Your task to perform on an android device: turn on improve location accuracy Image 0: 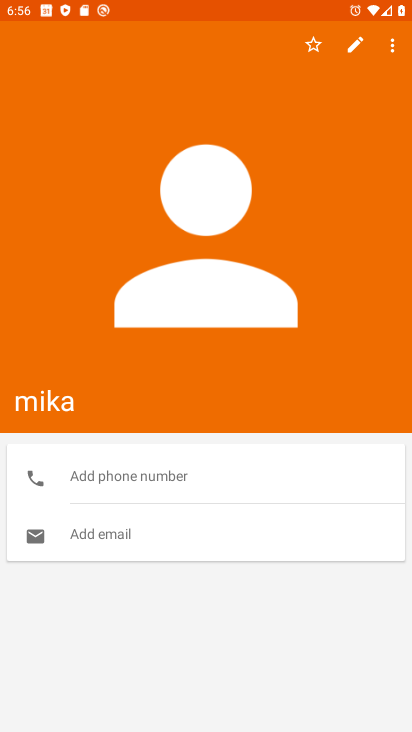
Step 0: press home button
Your task to perform on an android device: turn on improve location accuracy Image 1: 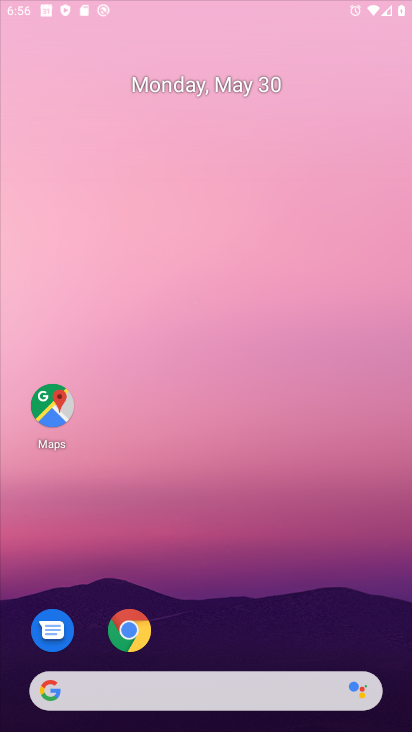
Step 1: drag from (319, 632) to (218, 8)
Your task to perform on an android device: turn on improve location accuracy Image 2: 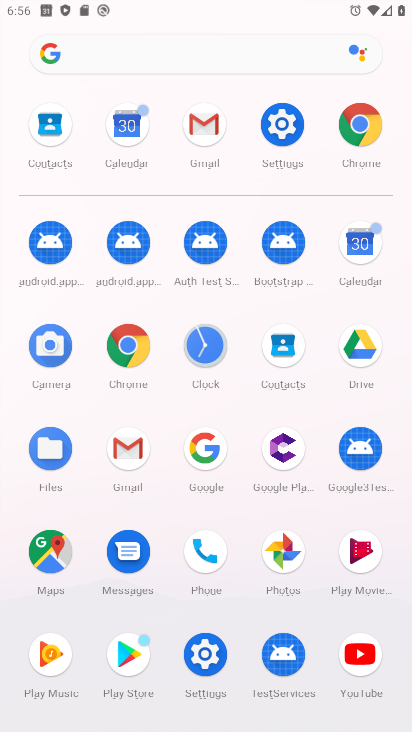
Step 2: click (269, 115)
Your task to perform on an android device: turn on improve location accuracy Image 3: 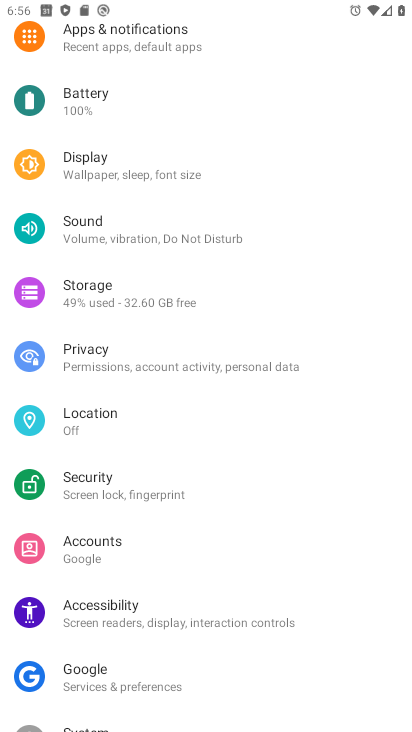
Step 3: click (107, 425)
Your task to perform on an android device: turn on improve location accuracy Image 4: 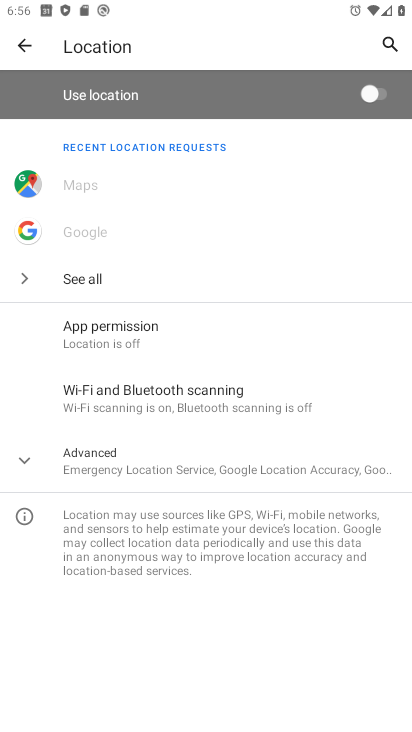
Step 4: click (115, 468)
Your task to perform on an android device: turn on improve location accuracy Image 5: 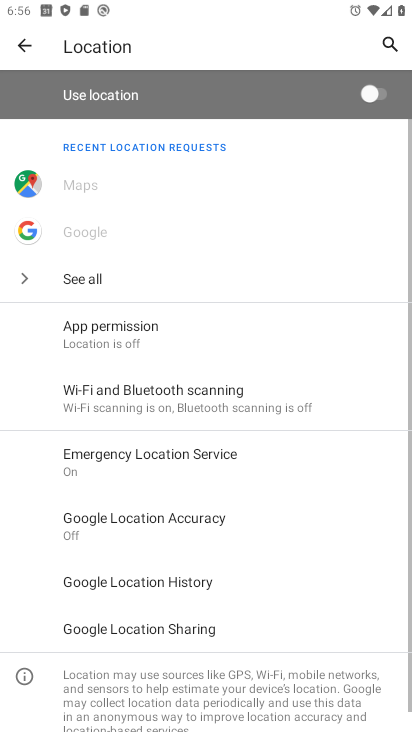
Step 5: click (177, 536)
Your task to perform on an android device: turn on improve location accuracy Image 6: 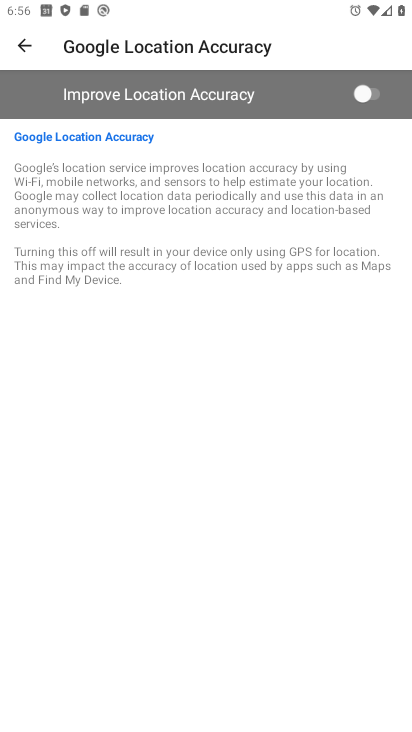
Step 6: click (348, 119)
Your task to perform on an android device: turn on improve location accuracy Image 7: 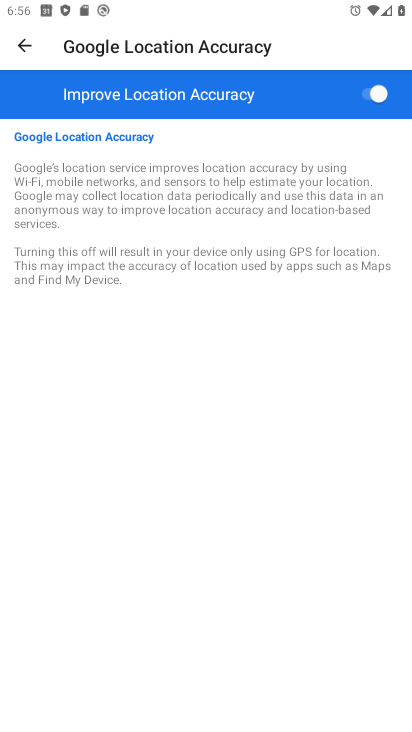
Step 7: task complete